Your task to perform on an android device: Open Android settings Image 0: 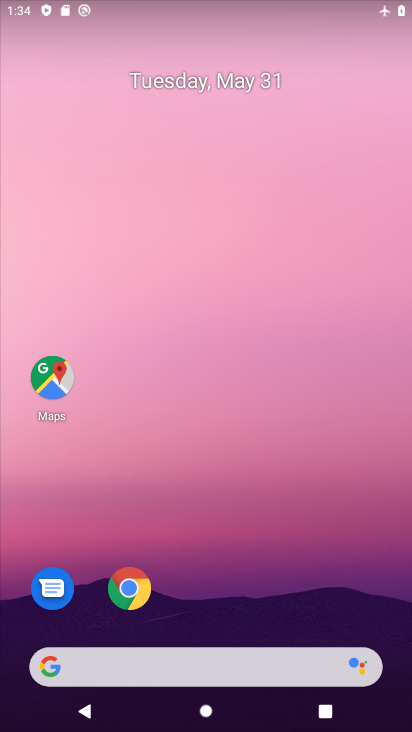
Step 0: drag from (235, 627) to (163, 180)
Your task to perform on an android device: Open Android settings Image 1: 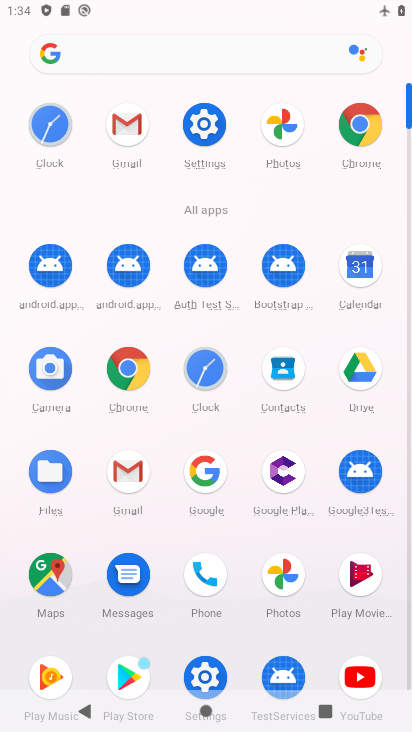
Step 1: click (203, 123)
Your task to perform on an android device: Open Android settings Image 2: 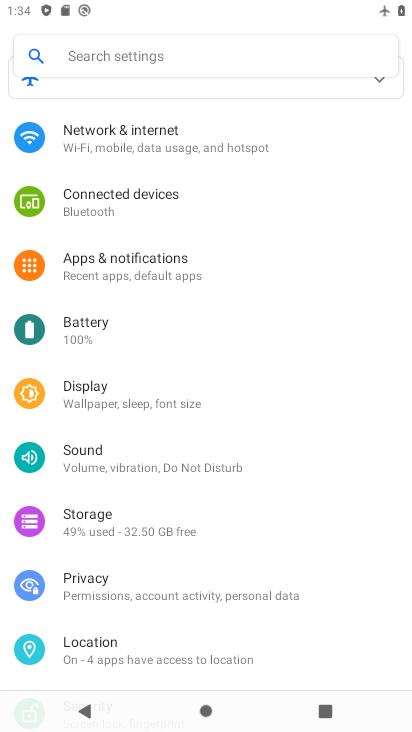
Step 2: task complete